Your task to perform on an android device: Open sound settings Image 0: 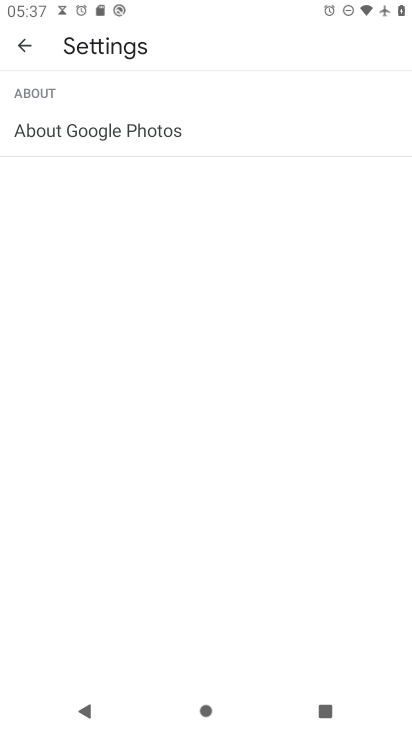
Step 0: press back button
Your task to perform on an android device: Open sound settings Image 1: 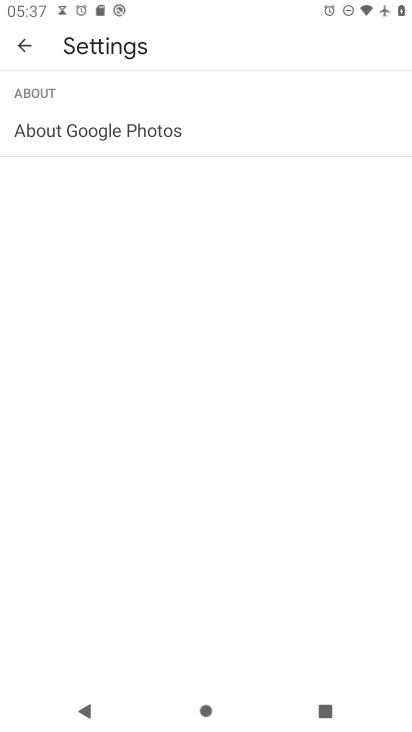
Step 1: press back button
Your task to perform on an android device: Open sound settings Image 2: 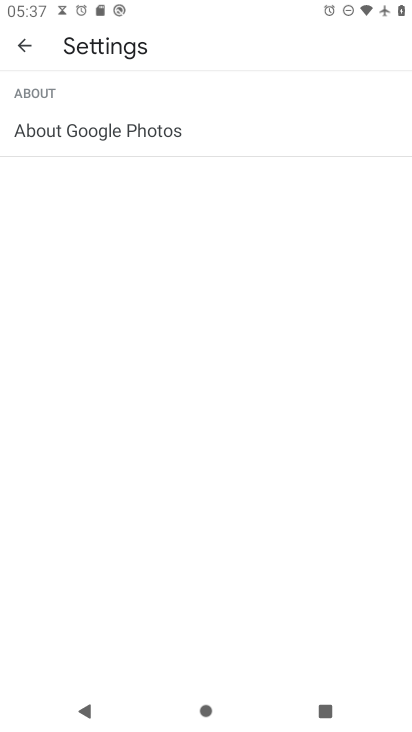
Step 2: click (33, 38)
Your task to perform on an android device: Open sound settings Image 3: 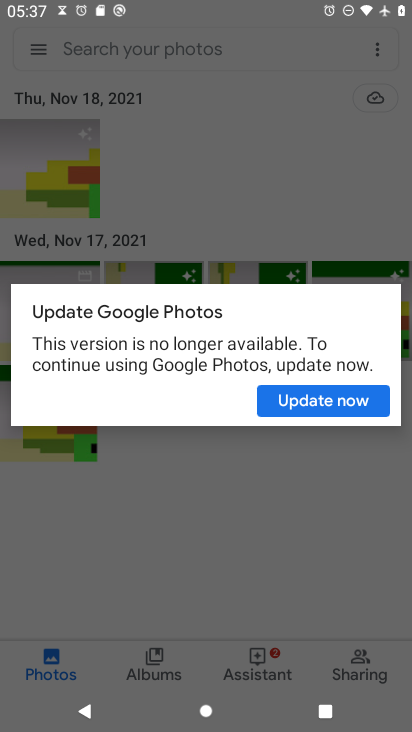
Step 3: press home button
Your task to perform on an android device: Open sound settings Image 4: 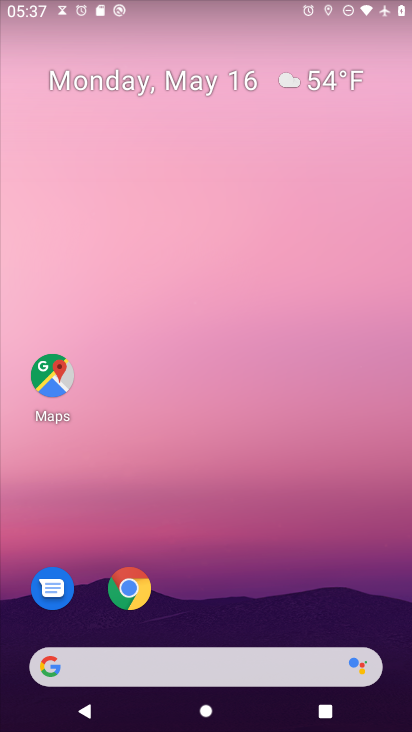
Step 4: drag from (252, 576) to (238, 89)
Your task to perform on an android device: Open sound settings Image 5: 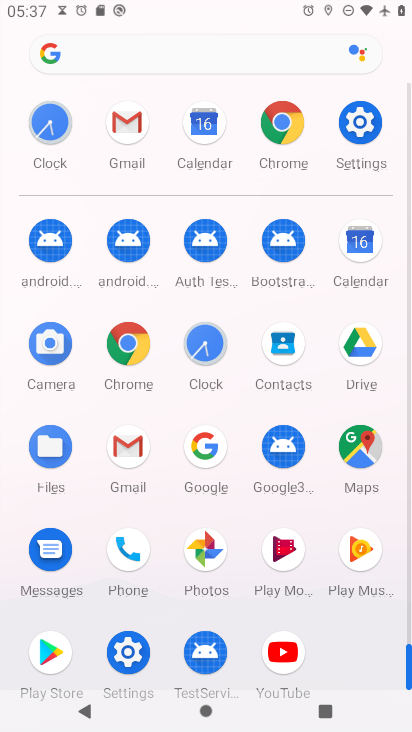
Step 5: click (126, 649)
Your task to perform on an android device: Open sound settings Image 6: 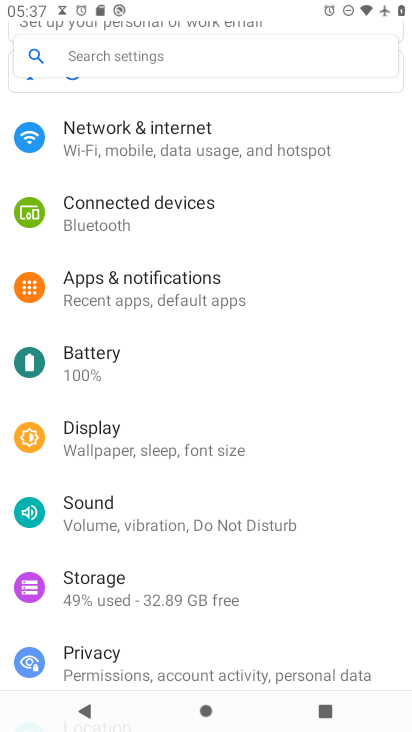
Step 6: click (142, 515)
Your task to perform on an android device: Open sound settings Image 7: 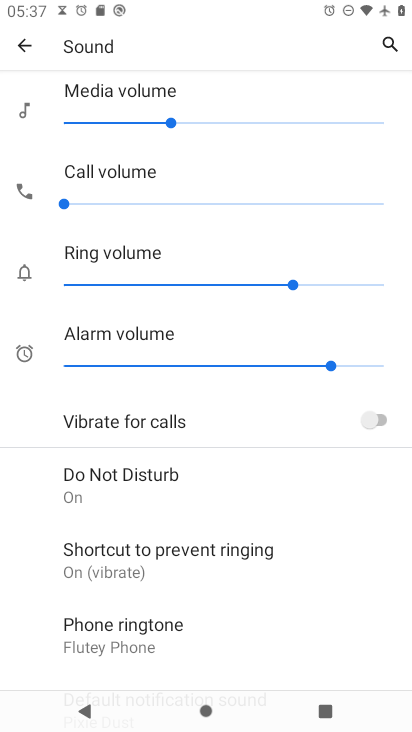
Step 7: drag from (200, 521) to (213, 229)
Your task to perform on an android device: Open sound settings Image 8: 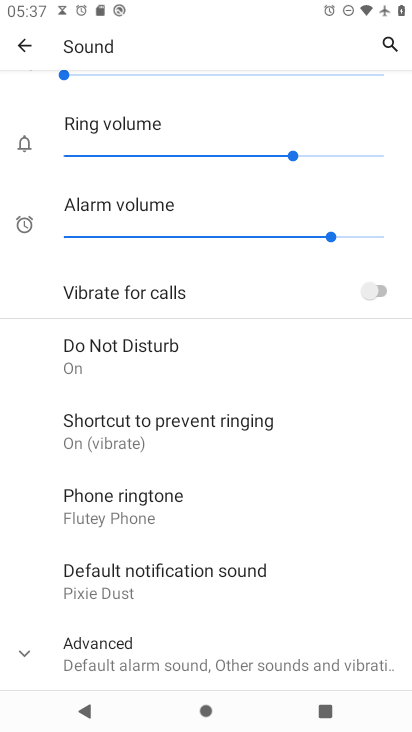
Step 8: click (34, 658)
Your task to perform on an android device: Open sound settings Image 9: 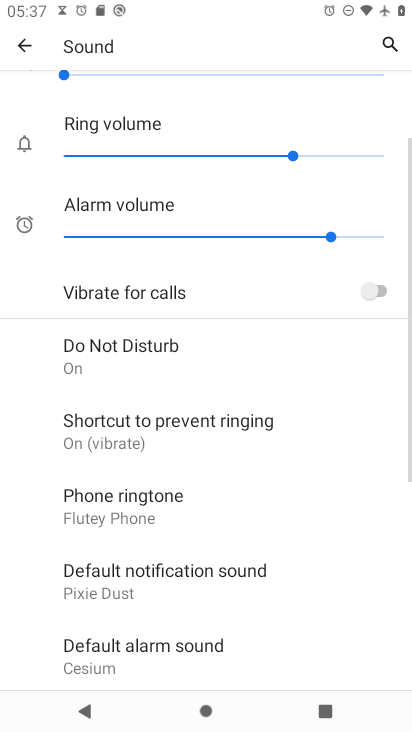
Step 9: task complete